Your task to perform on an android device: turn on the 24-hour format for clock Image 0: 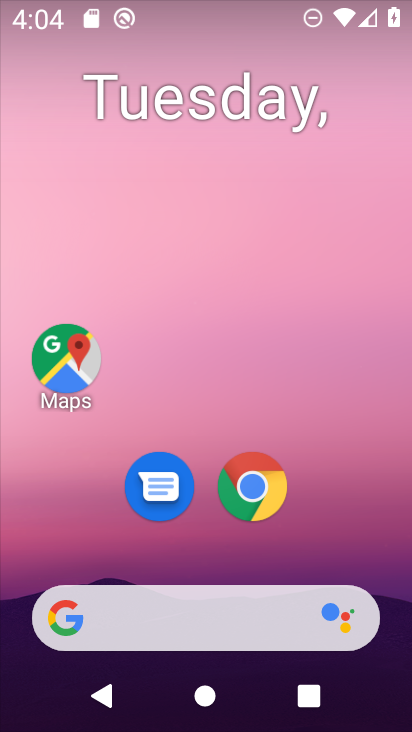
Step 0: drag from (181, 541) to (269, 65)
Your task to perform on an android device: turn on the 24-hour format for clock Image 1: 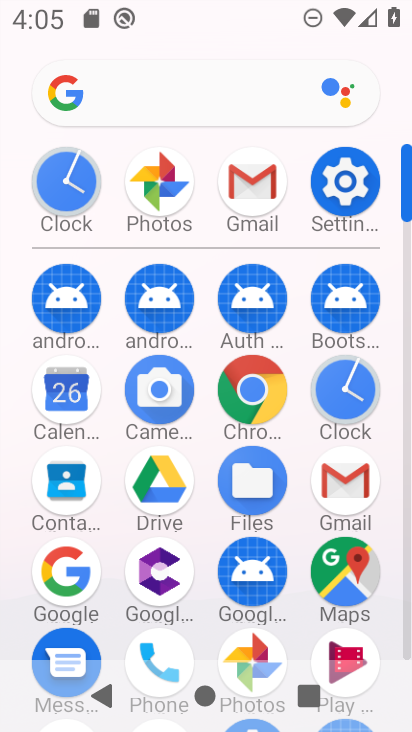
Step 1: click (361, 380)
Your task to perform on an android device: turn on the 24-hour format for clock Image 2: 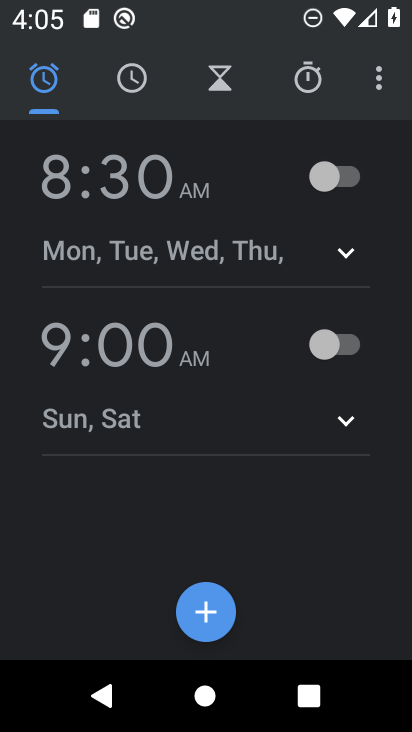
Step 2: click (378, 65)
Your task to perform on an android device: turn on the 24-hour format for clock Image 3: 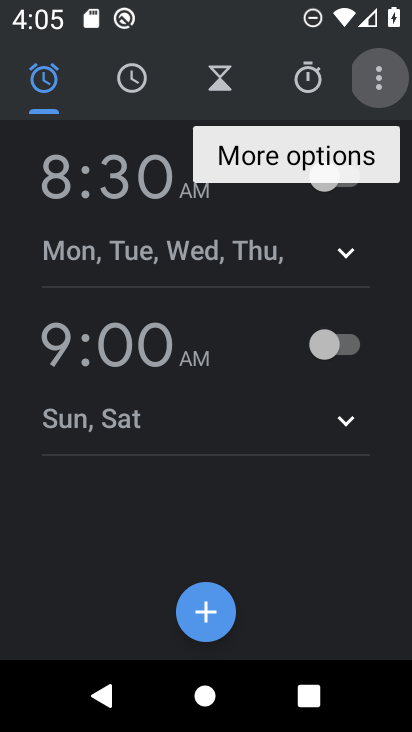
Step 3: click (378, 65)
Your task to perform on an android device: turn on the 24-hour format for clock Image 4: 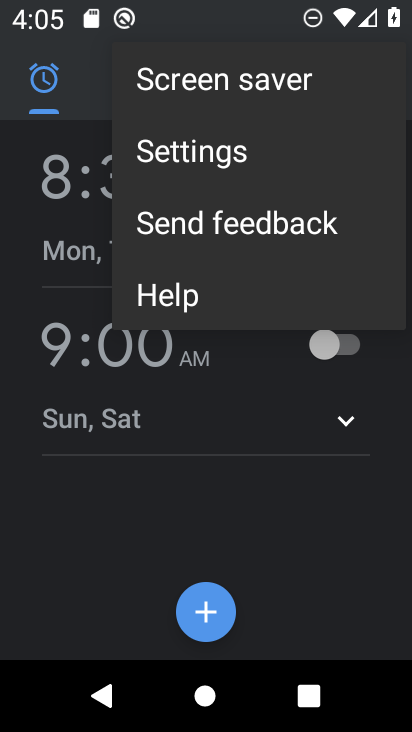
Step 4: click (214, 158)
Your task to perform on an android device: turn on the 24-hour format for clock Image 5: 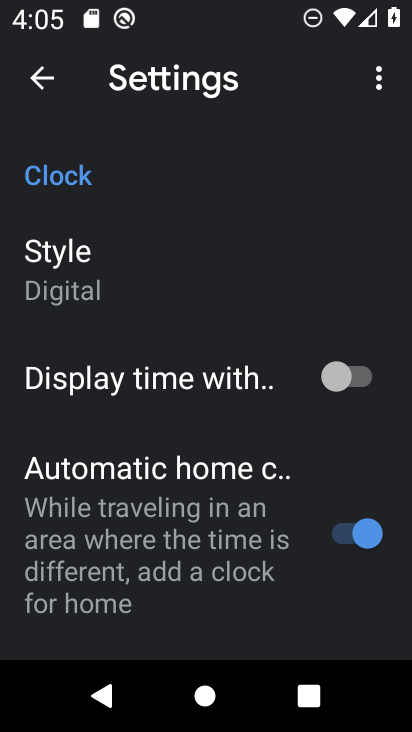
Step 5: drag from (91, 522) to (206, 51)
Your task to perform on an android device: turn on the 24-hour format for clock Image 6: 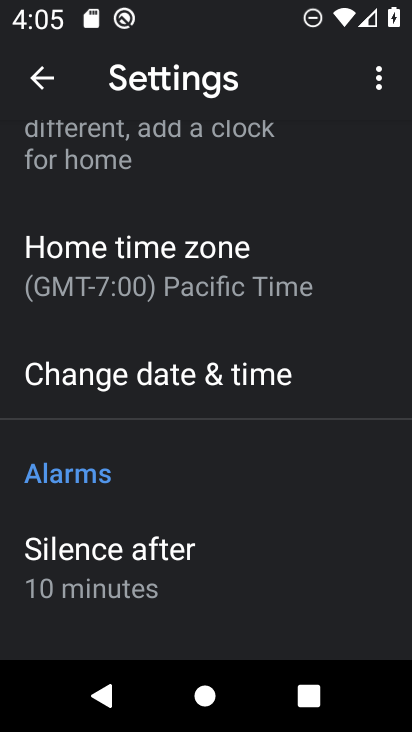
Step 6: click (186, 377)
Your task to perform on an android device: turn on the 24-hour format for clock Image 7: 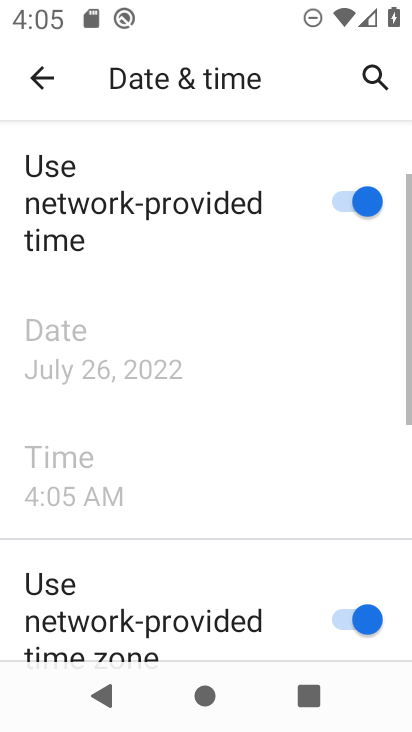
Step 7: drag from (141, 604) to (227, 126)
Your task to perform on an android device: turn on the 24-hour format for clock Image 8: 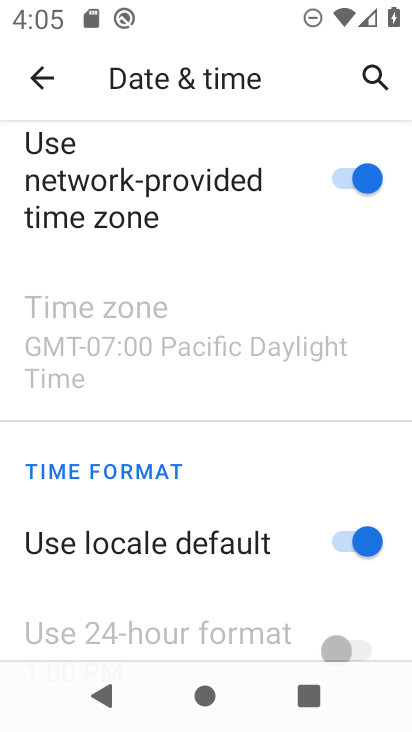
Step 8: click (337, 530)
Your task to perform on an android device: turn on the 24-hour format for clock Image 9: 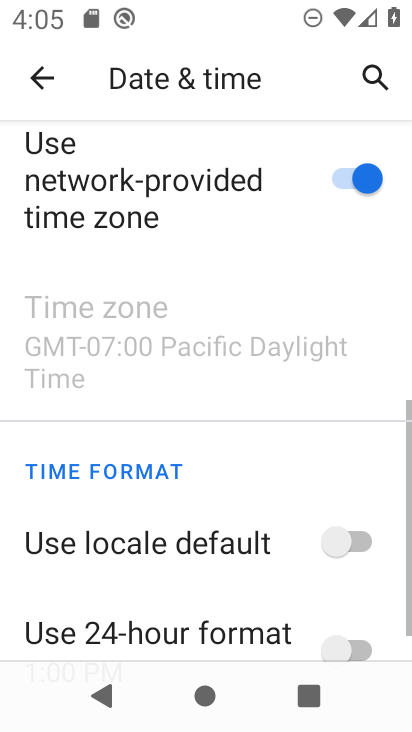
Step 9: click (336, 647)
Your task to perform on an android device: turn on the 24-hour format for clock Image 10: 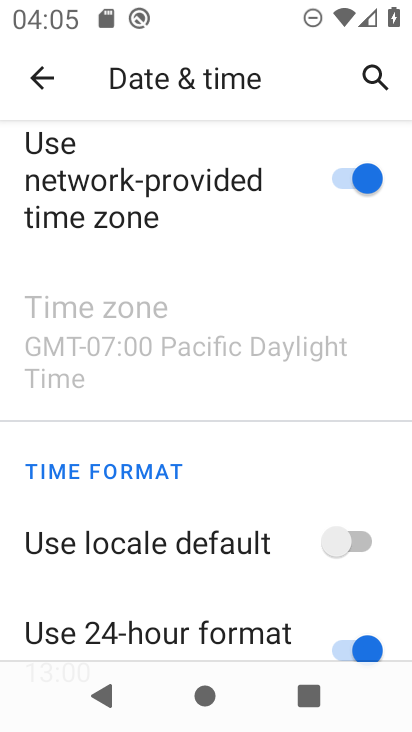
Step 10: task complete